Your task to perform on an android device: Go to display settings Image 0: 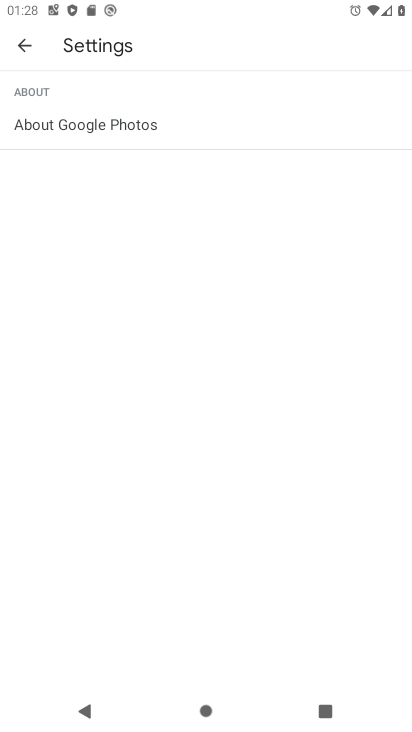
Step 0: press home button
Your task to perform on an android device: Go to display settings Image 1: 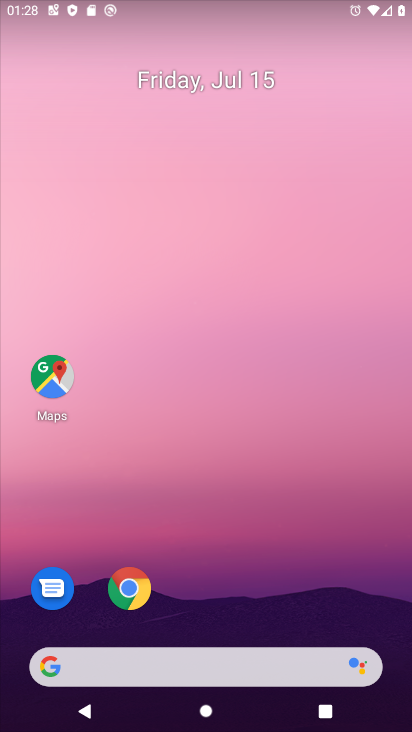
Step 1: drag from (385, 623) to (337, 81)
Your task to perform on an android device: Go to display settings Image 2: 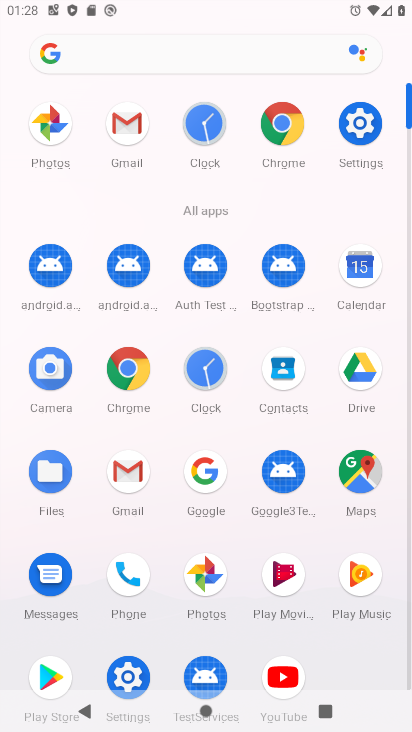
Step 2: click (125, 668)
Your task to perform on an android device: Go to display settings Image 3: 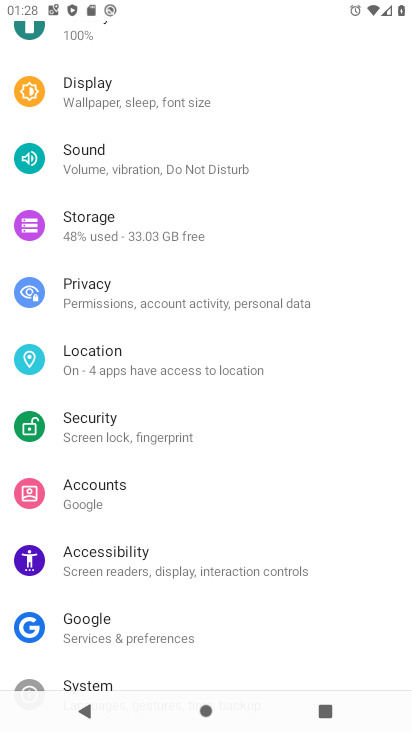
Step 3: click (138, 87)
Your task to perform on an android device: Go to display settings Image 4: 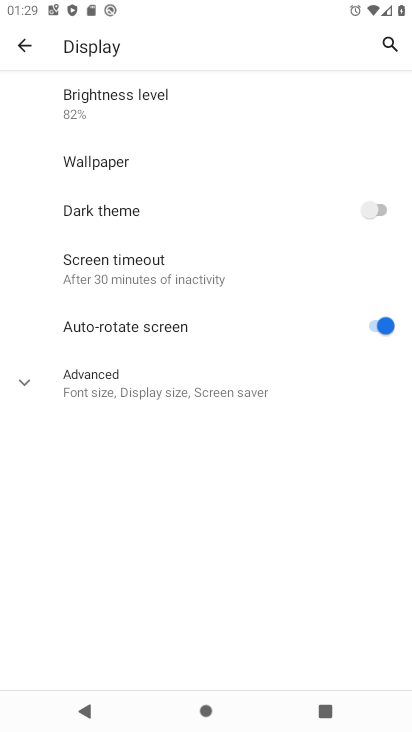
Step 4: click (20, 379)
Your task to perform on an android device: Go to display settings Image 5: 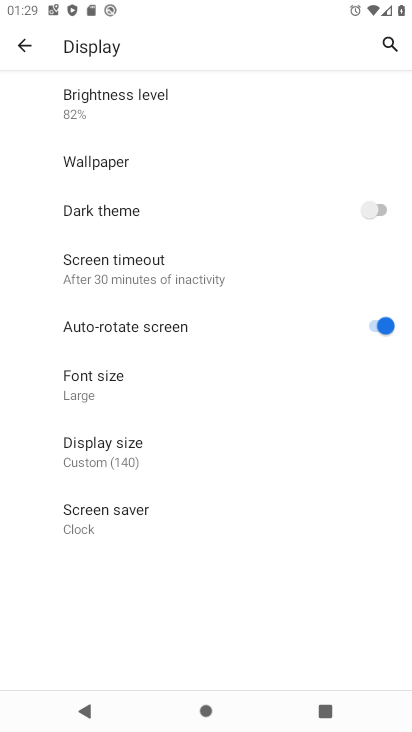
Step 5: task complete